Your task to perform on an android device: Open the calendar app, open the side menu, and click the "Day" option Image 0: 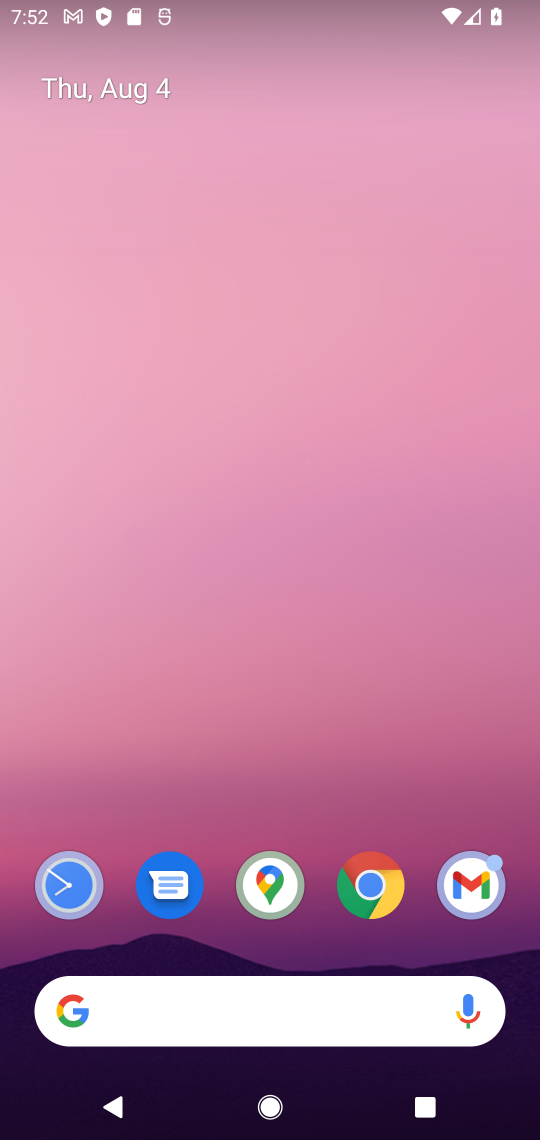
Step 0: press home button
Your task to perform on an android device: Open the calendar app, open the side menu, and click the "Day" option Image 1: 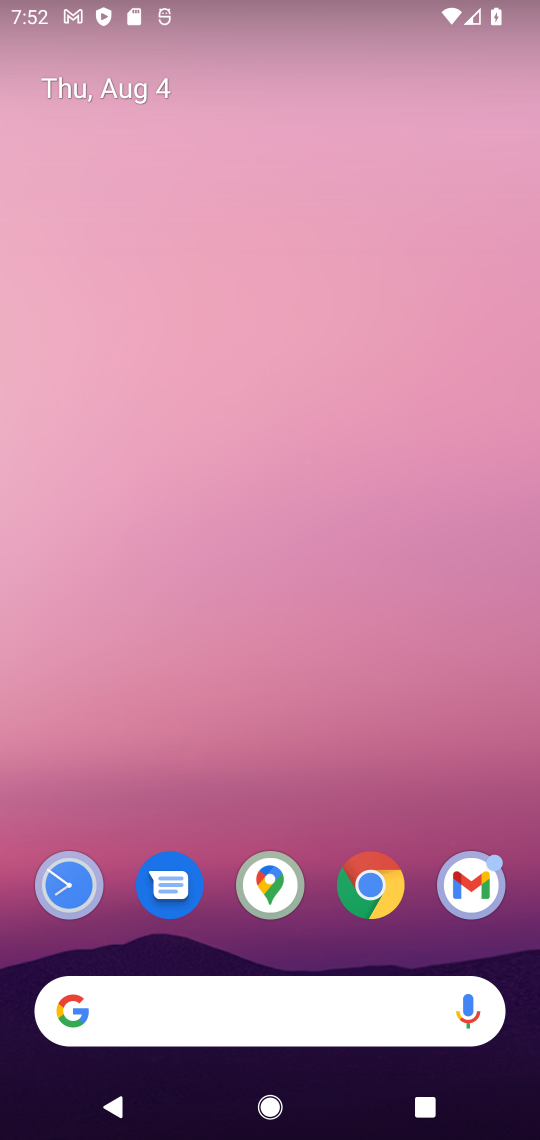
Step 1: press home button
Your task to perform on an android device: Open the calendar app, open the side menu, and click the "Day" option Image 2: 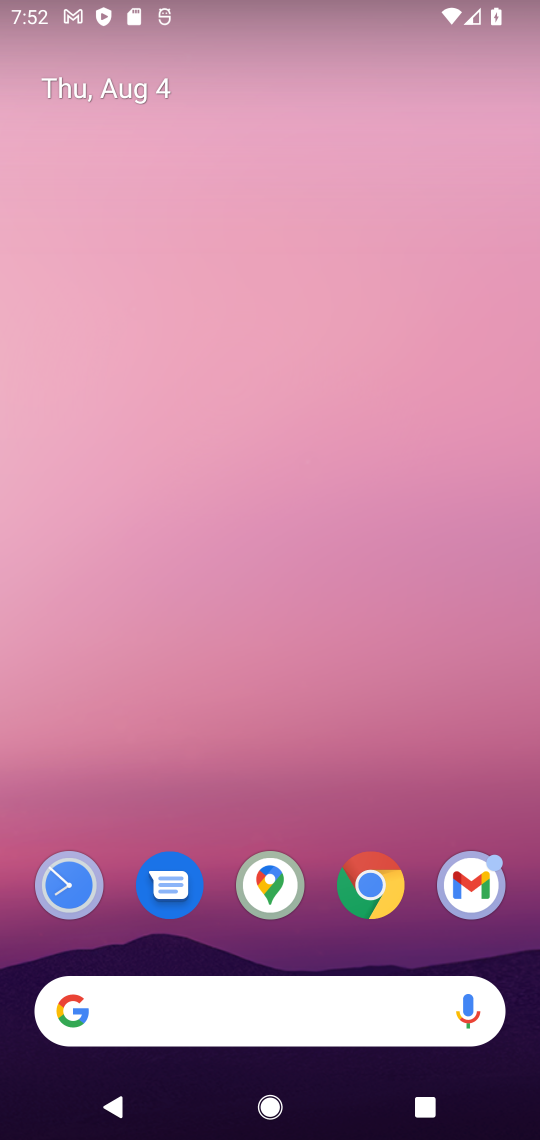
Step 2: press home button
Your task to perform on an android device: Open the calendar app, open the side menu, and click the "Day" option Image 3: 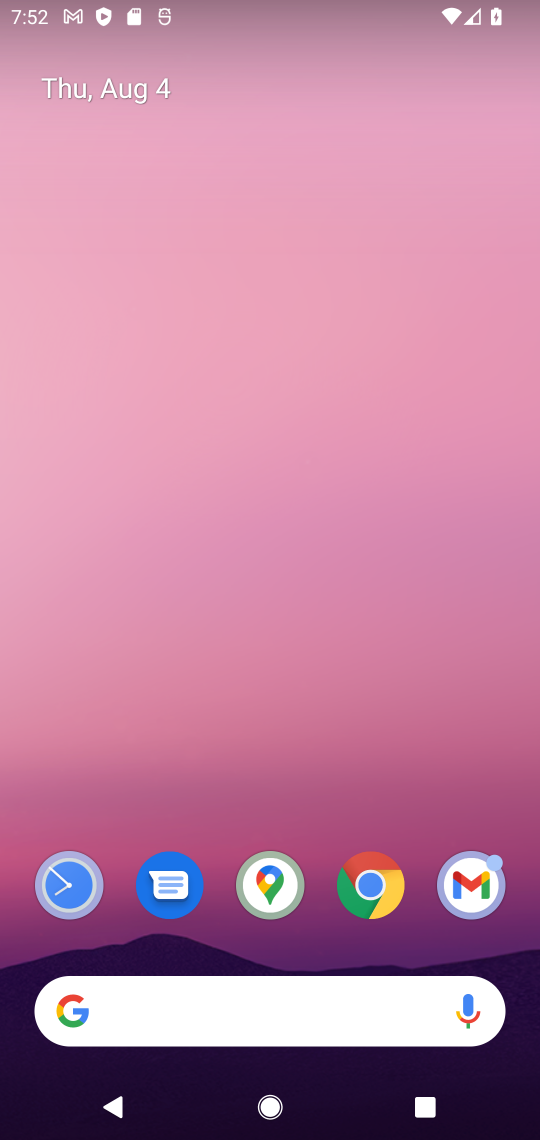
Step 3: press home button
Your task to perform on an android device: Open the calendar app, open the side menu, and click the "Day" option Image 4: 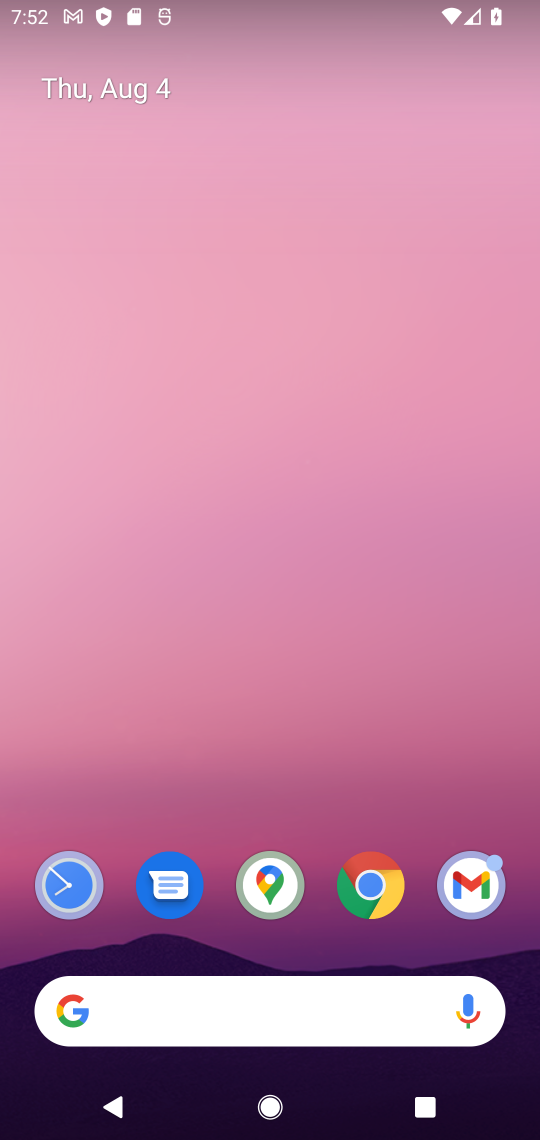
Step 4: drag from (316, 804) to (72, 39)
Your task to perform on an android device: Open the calendar app, open the side menu, and click the "Day" option Image 5: 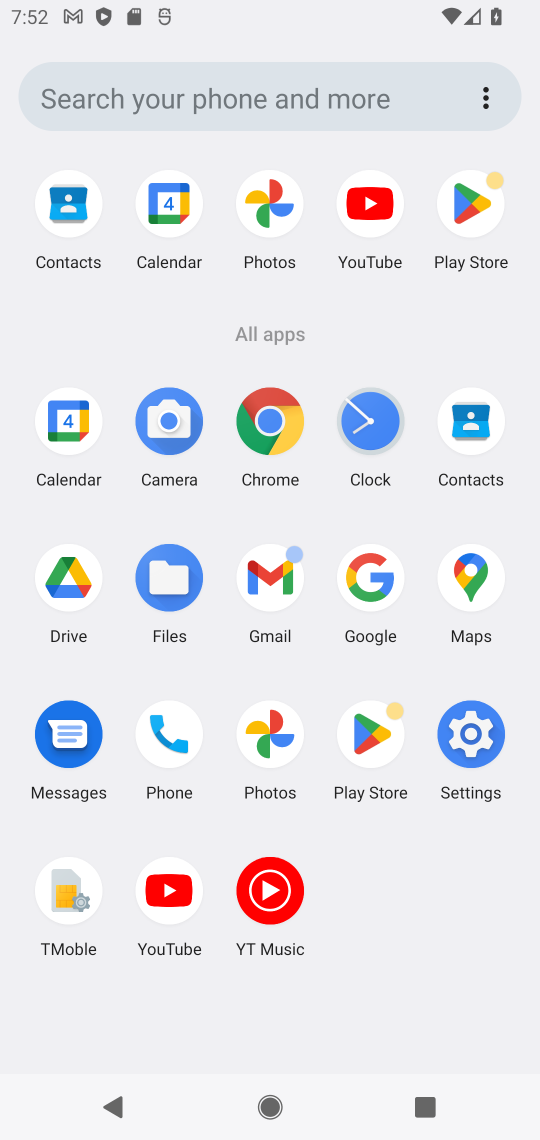
Step 5: click (151, 213)
Your task to perform on an android device: Open the calendar app, open the side menu, and click the "Day" option Image 6: 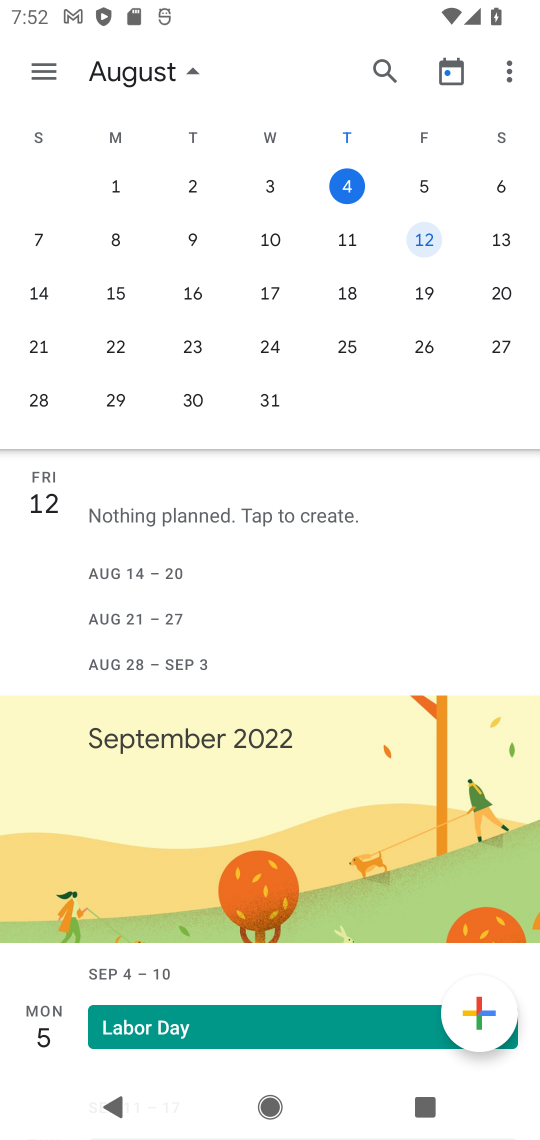
Step 6: click (43, 65)
Your task to perform on an android device: Open the calendar app, open the side menu, and click the "Day" option Image 7: 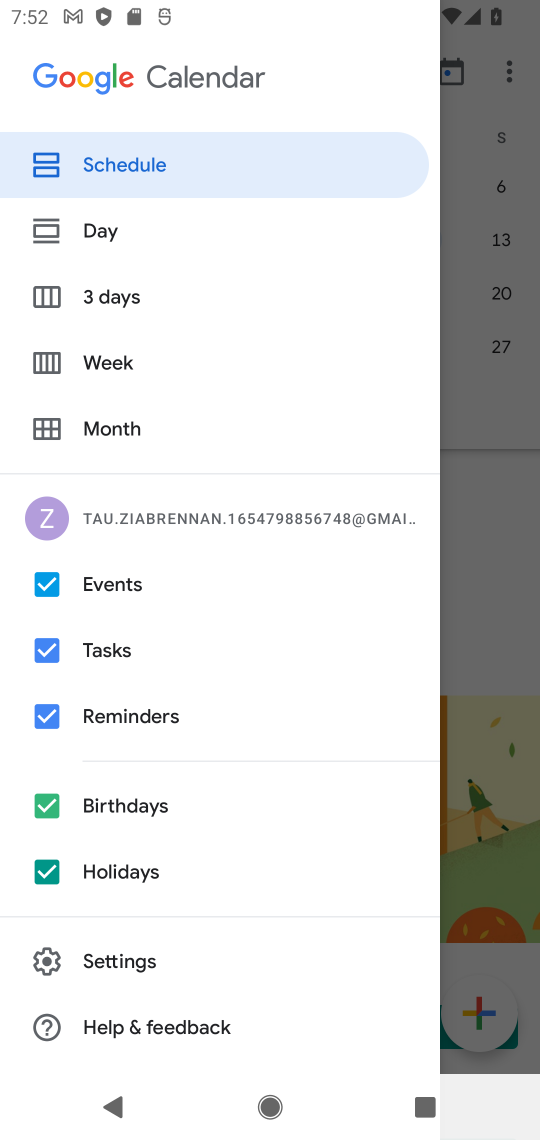
Step 7: click (84, 226)
Your task to perform on an android device: Open the calendar app, open the side menu, and click the "Day" option Image 8: 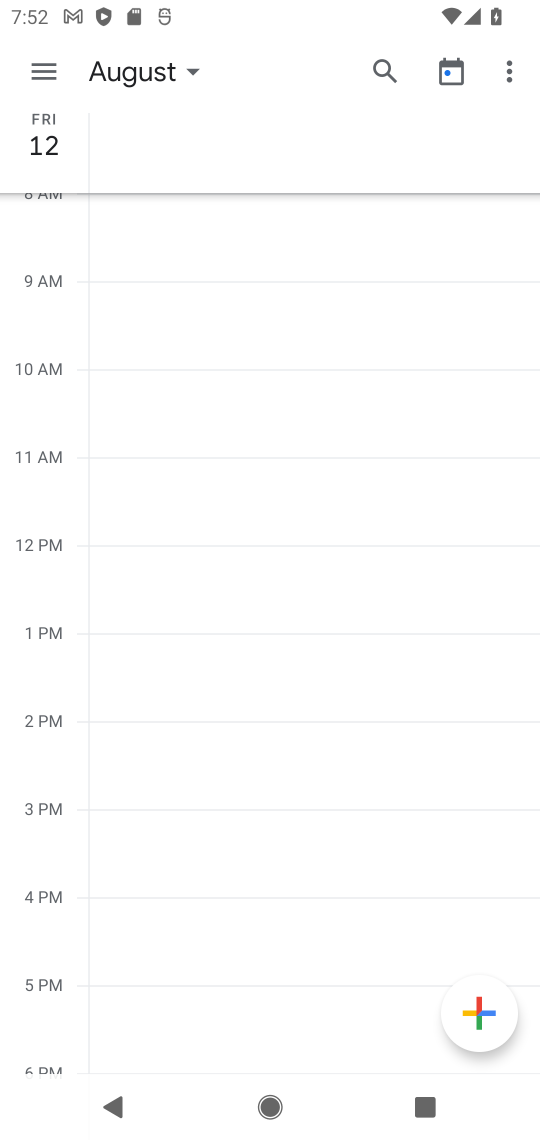
Step 8: task complete